Your task to perform on an android device: Go to wifi settings Image 0: 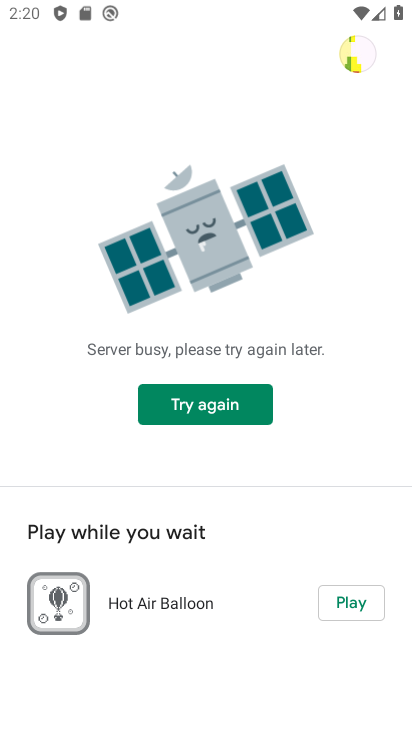
Step 0: press home button
Your task to perform on an android device: Go to wifi settings Image 1: 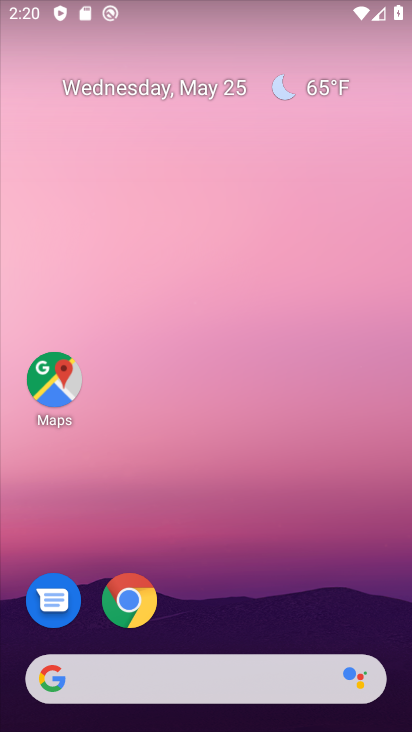
Step 1: drag from (257, 612) to (162, 191)
Your task to perform on an android device: Go to wifi settings Image 2: 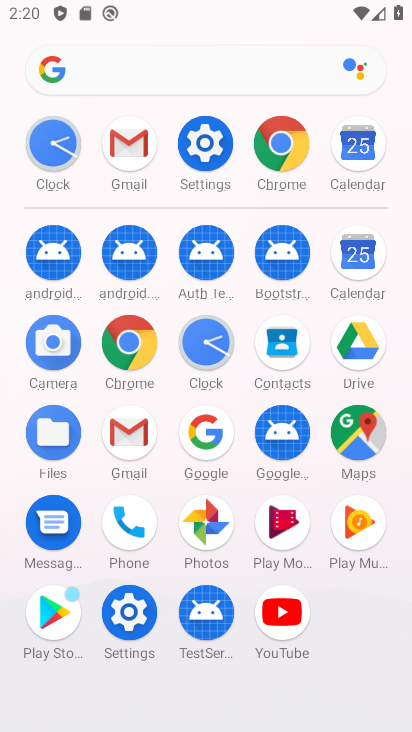
Step 2: click (196, 153)
Your task to perform on an android device: Go to wifi settings Image 3: 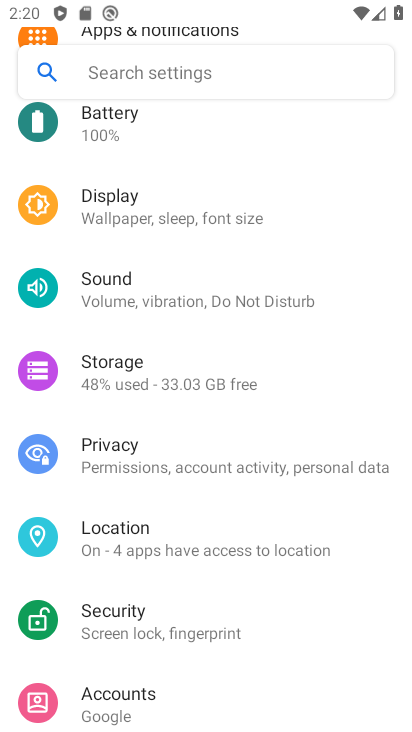
Step 3: drag from (162, 223) to (161, 632)
Your task to perform on an android device: Go to wifi settings Image 4: 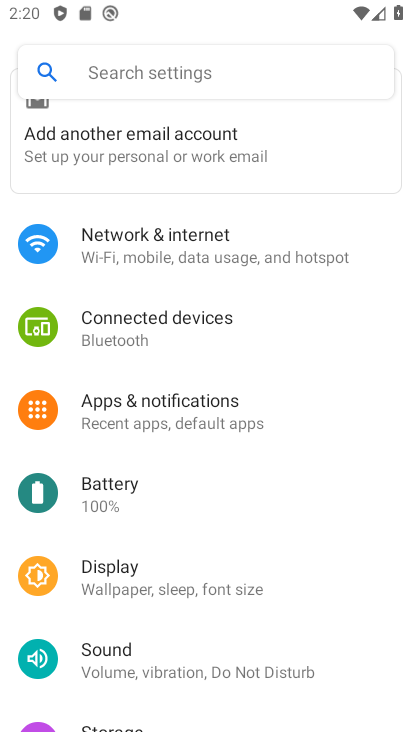
Step 4: click (164, 244)
Your task to perform on an android device: Go to wifi settings Image 5: 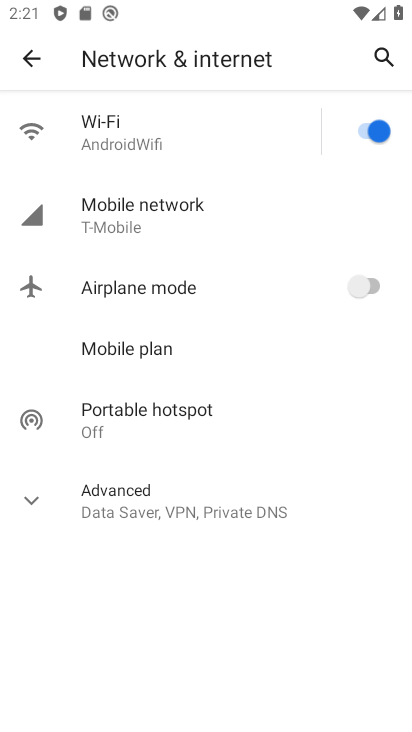
Step 5: click (282, 135)
Your task to perform on an android device: Go to wifi settings Image 6: 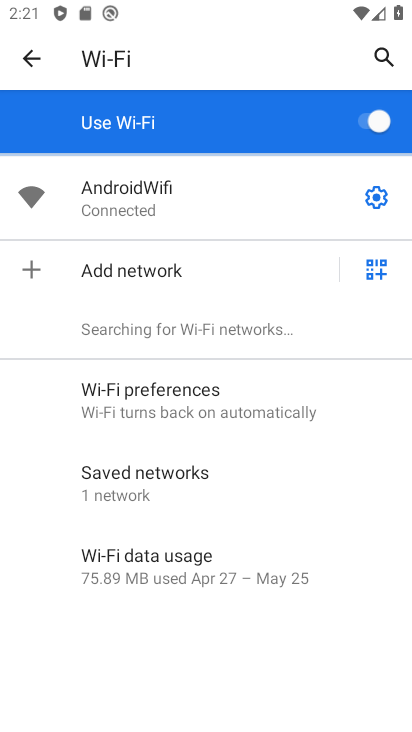
Step 6: click (378, 203)
Your task to perform on an android device: Go to wifi settings Image 7: 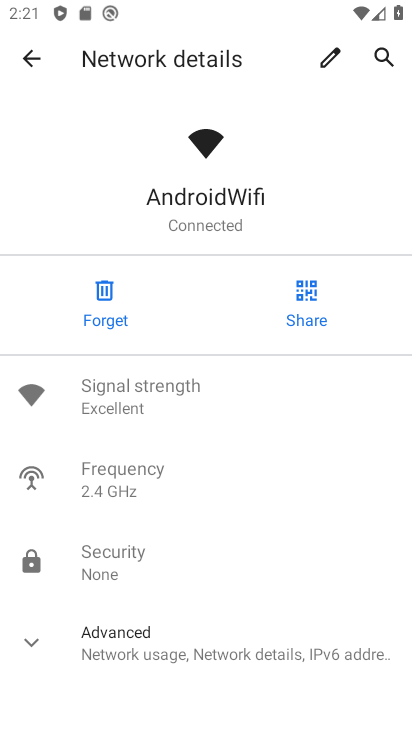
Step 7: task complete